Your task to perform on an android device: Open Google Maps Image 0: 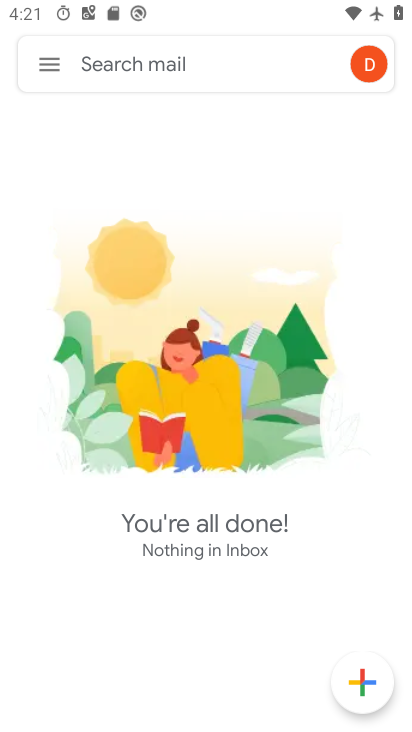
Step 0: press home button
Your task to perform on an android device: Open Google Maps Image 1: 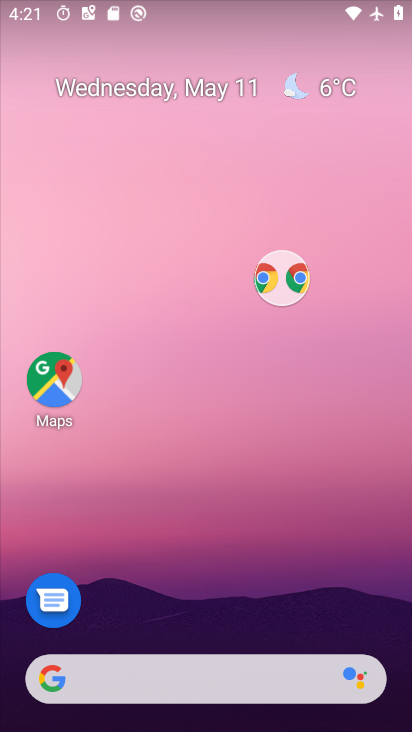
Step 1: drag from (255, 569) to (50, 0)
Your task to perform on an android device: Open Google Maps Image 2: 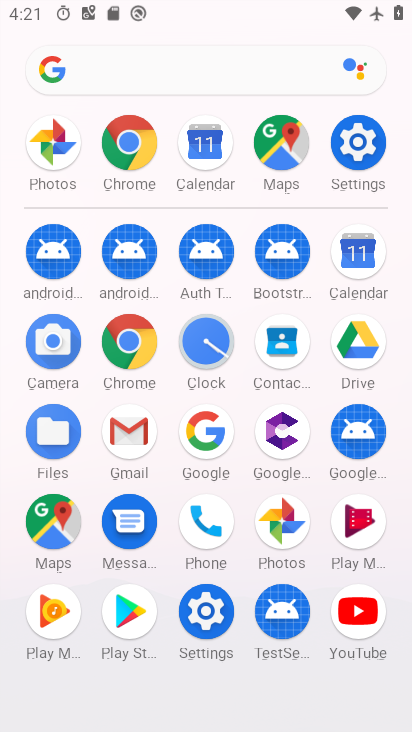
Step 2: click (262, 152)
Your task to perform on an android device: Open Google Maps Image 3: 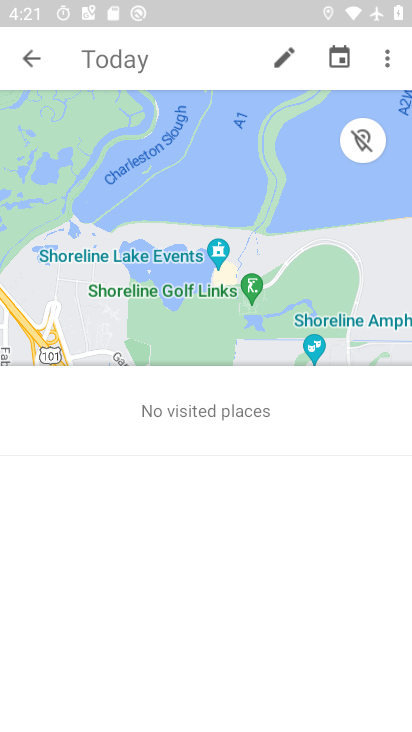
Step 3: task complete